Your task to perform on an android device: Open the web browser Image 0: 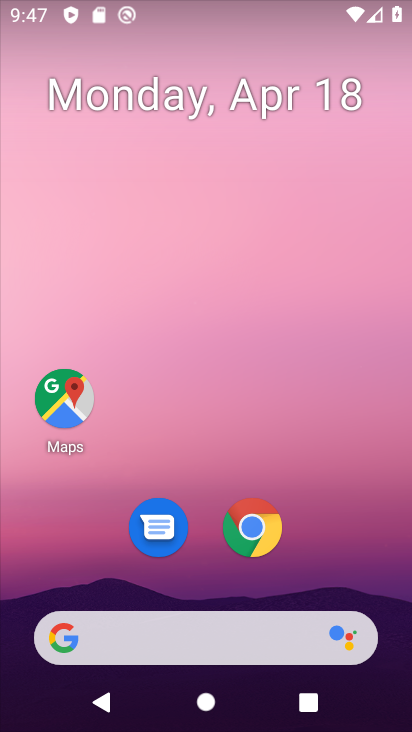
Step 0: drag from (167, 621) to (268, 120)
Your task to perform on an android device: Open the web browser Image 1: 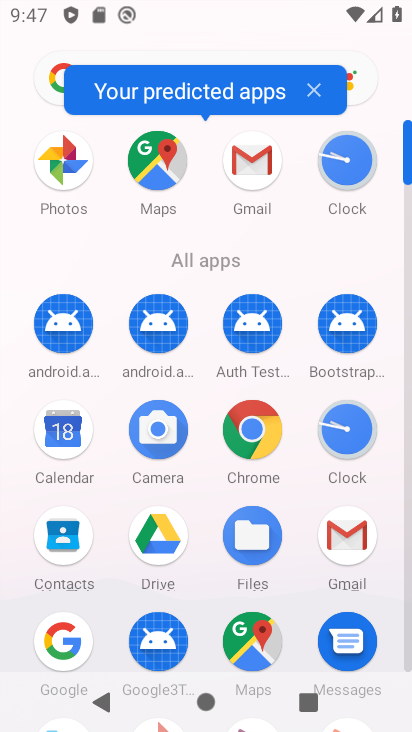
Step 1: drag from (208, 567) to (239, 444)
Your task to perform on an android device: Open the web browser Image 2: 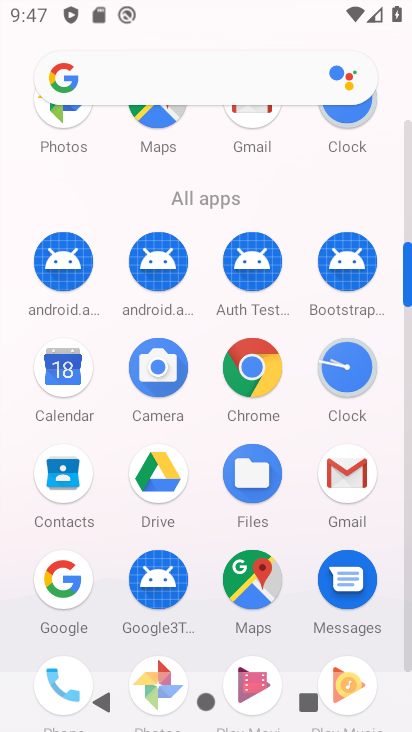
Step 2: click (66, 583)
Your task to perform on an android device: Open the web browser Image 3: 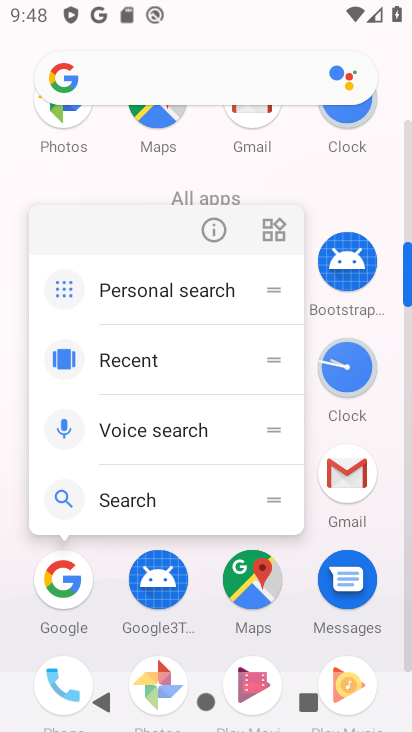
Step 3: click (59, 591)
Your task to perform on an android device: Open the web browser Image 4: 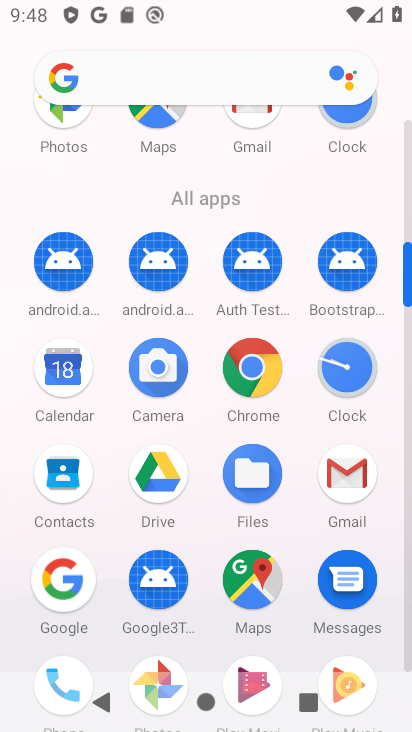
Step 4: click (76, 586)
Your task to perform on an android device: Open the web browser Image 5: 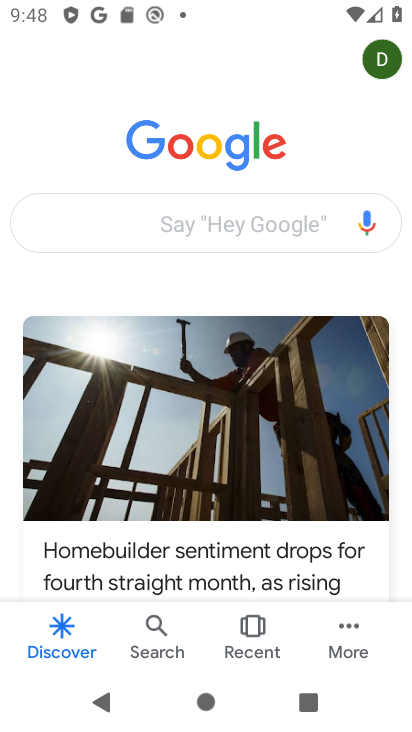
Step 5: task complete